Your task to perform on an android device: empty trash in google photos Image 0: 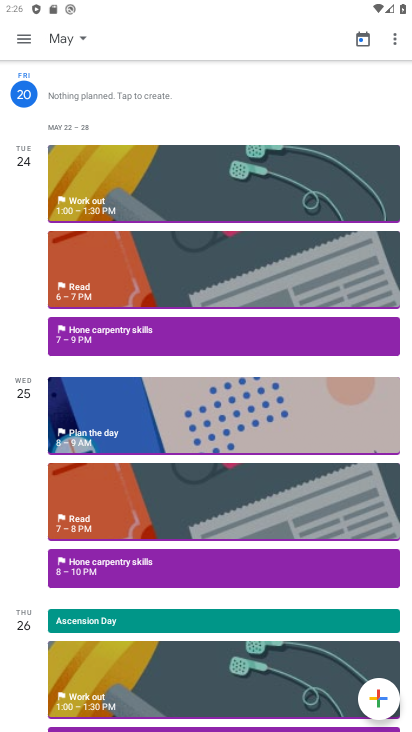
Step 0: press home button
Your task to perform on an android device: empty trash in google photos Image 1: 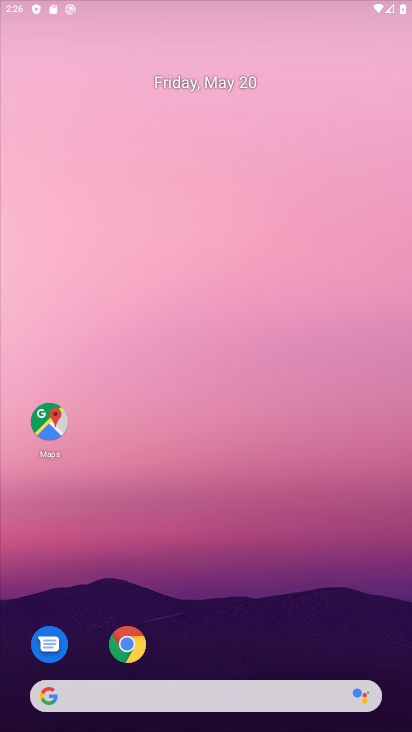
Step 1: drag from (317, 589) to (307, 138)
Your task to perform on an android device: empty trash in google photos Image 2: 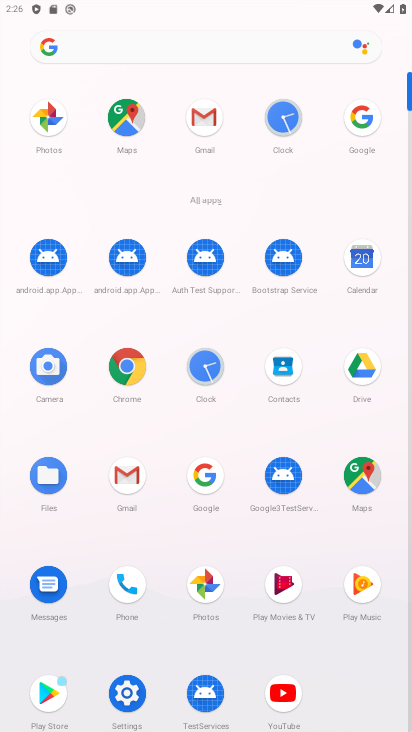
Step 2: click (48, 114)
Your task to perform on an android device: empty trash in google photos Image 3: 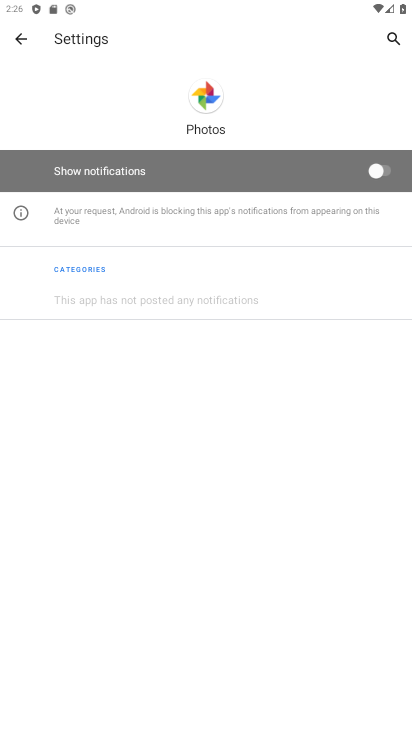
Step 3: press back button
Your task to perform on an android device: empty trash in google photos Image 4: 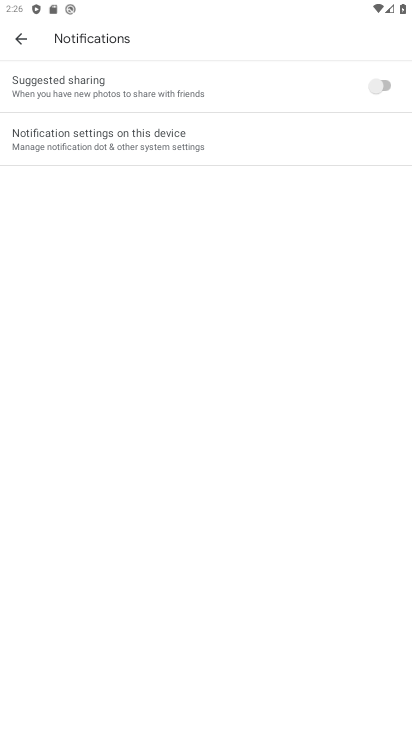
Step 4: press back button
Your task to perform on an android device: empty trash in google photos Image 5: 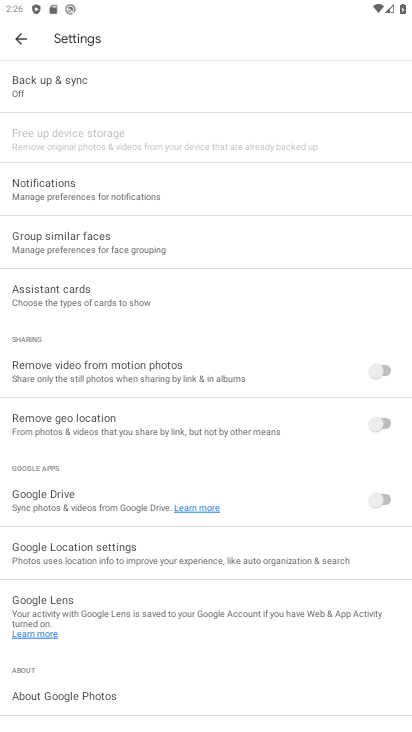
Step 5: press back button
Your task to perform on an android device: empty trash in google photos Image 6: 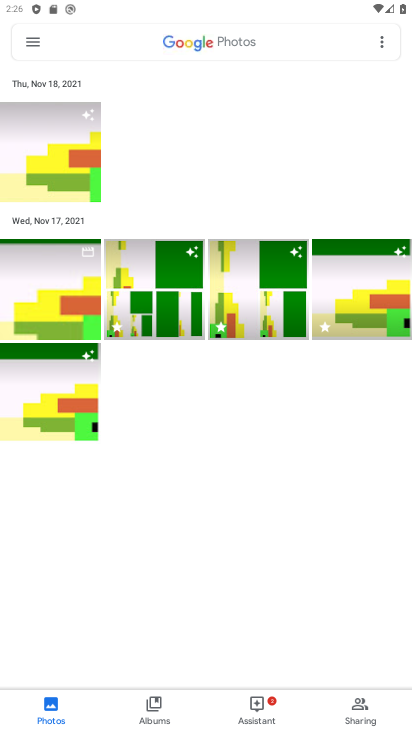
Step 6: click (32, 55)
Your task to perform on an android device: empty trash in google photos Image 7: 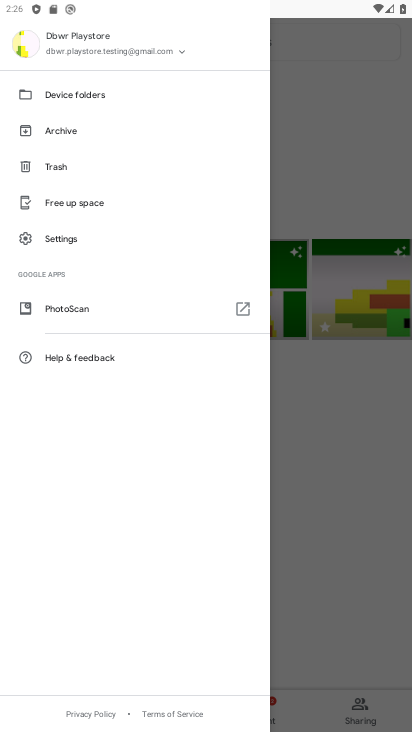
Step 7: click (69, 167)
Your task to perform on an android device: empty trash in google photos Image 8: 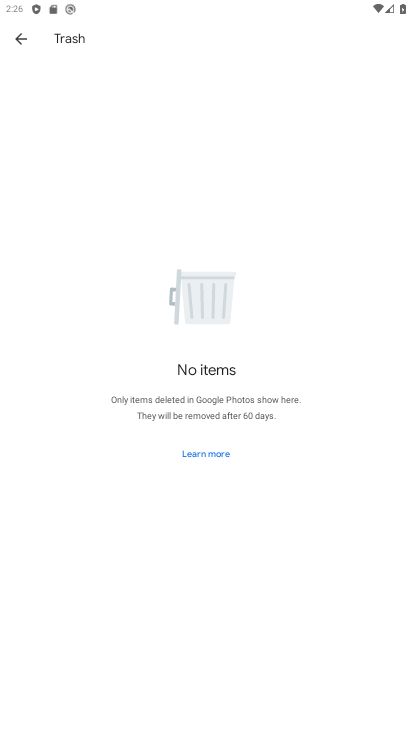
Step 8: task complete